Your task to perform on an android device: toggle show notifications on the lock screen Image 0: 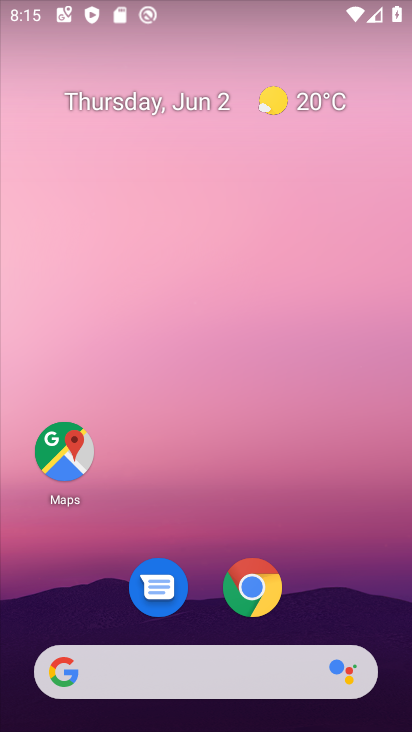
Step 0: drag from (199, 619) to (240, 80)
Your task to perform on an android device: toggle show notifications on the lock screen Image 1: 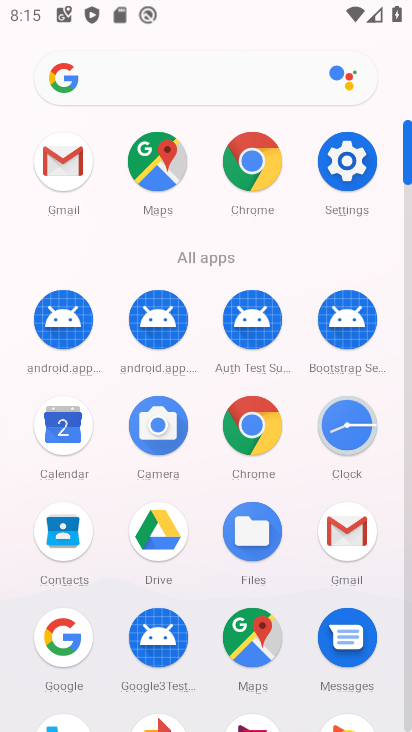
Step 1: click (364, 155)
Your task to perform on an android device: toggle show notifications on the lock screen Image 2: 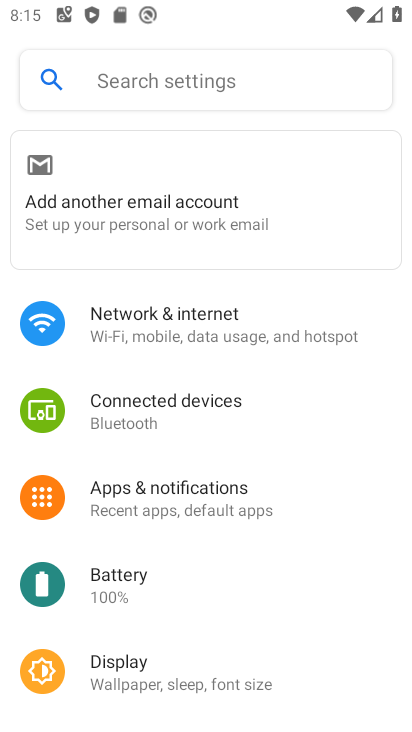
Step 2: click (150, 508)
Your task to perform on an android device: toggle show notifications on the lock screen Image 3: 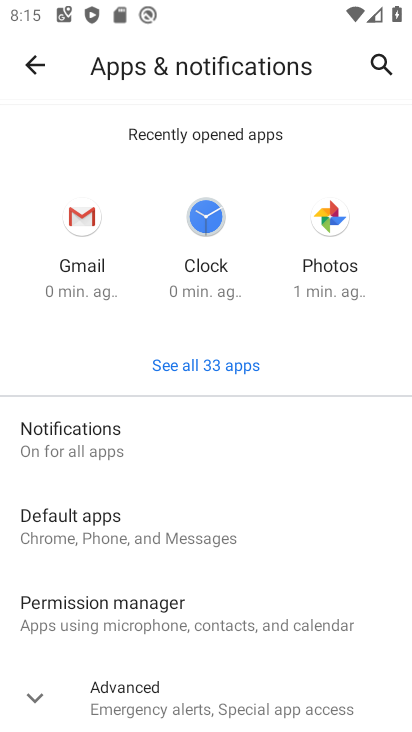
Step 3: click (193, 446)
Your task to perform on an android device: toggle show notifications on the lock screen Image 4: 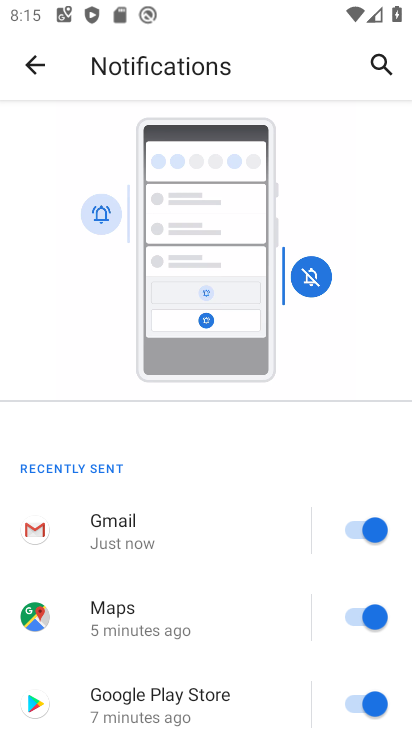
Step 4: drag from (160, 695) to (380, 14)
Your task to perform on an android device: toggle show notifications on the lock screen Image 5: 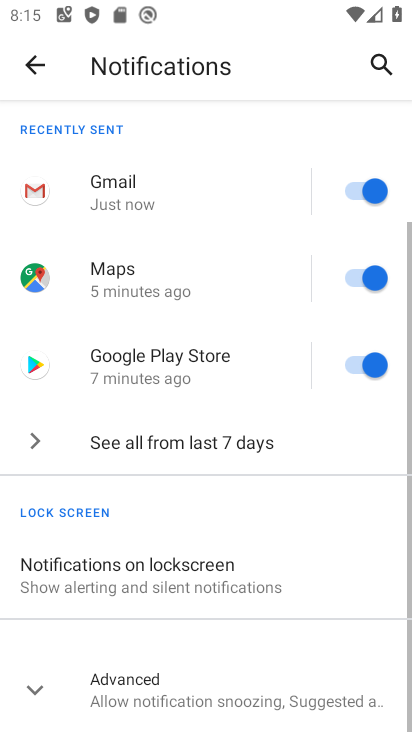
Step 5: click (136, 583)
Your task to perform on an android device: toggle show notifications on the lock screen Image 6: 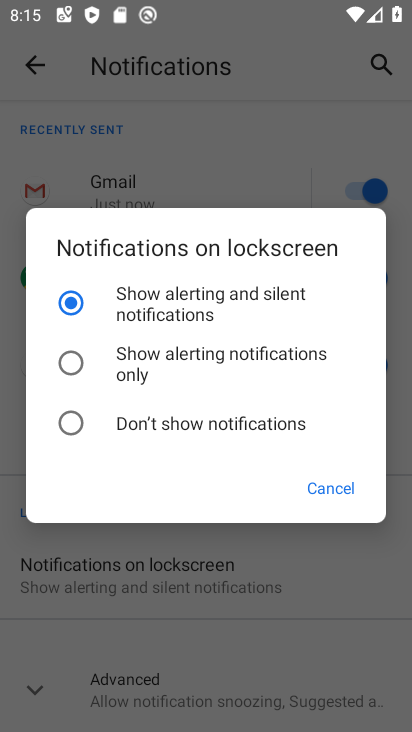
Step 6: click (287, 359)
Your task to perform on an android device: toggle show notifications on the lock screen Image 7: 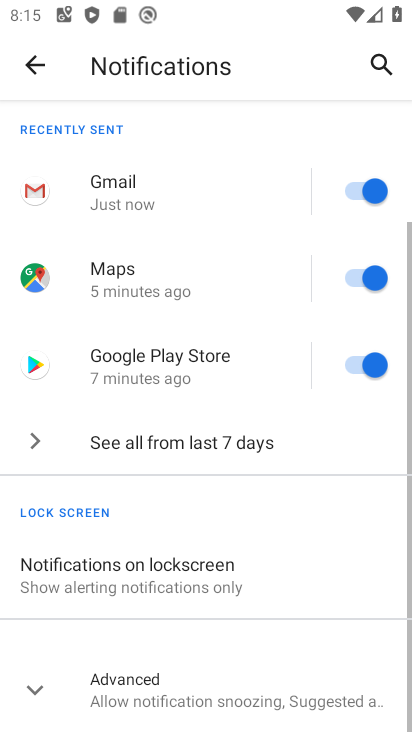
Step 7: task complete